Your task to perform on an android device: What's the weather going to be tomorrow? Image 0: 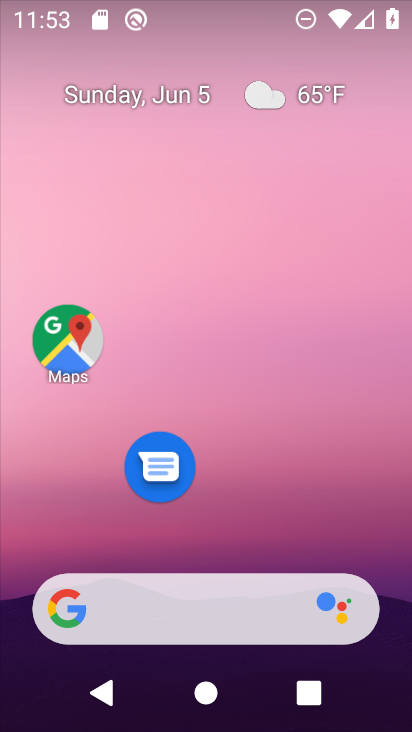
Step 0: press home button
Your task to perform on an android device: What's the weather going to be tomorrow? Image 1: 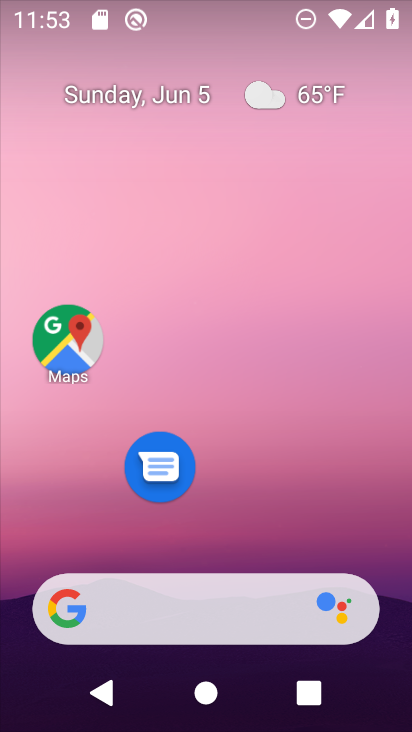
Step 1: drag from (282, 531) to (317, 21)
Your task to perform on an android device: What's the weather going to be tomorrow? Image 2: 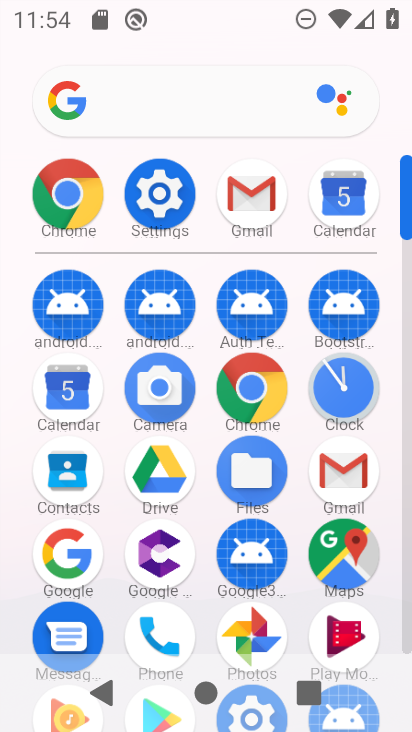
Step 2: click (254, 199)
Your task to perform on an android device: What's the weather going to be tomorrow? Image 3: 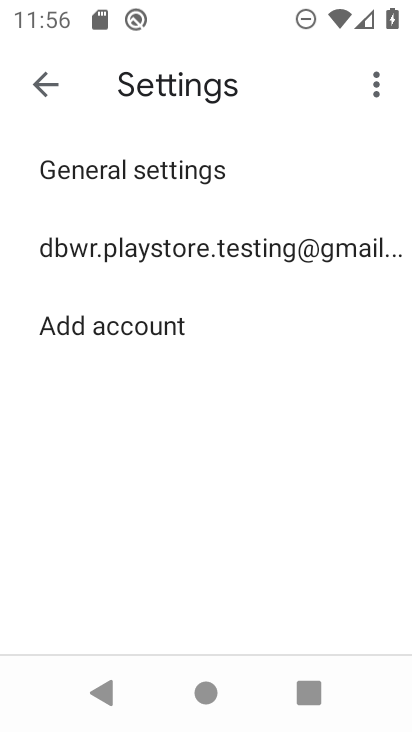
Step 3: press home button
Your task to perform on an android device: What's the weather going to be tomorrow? Image 4: 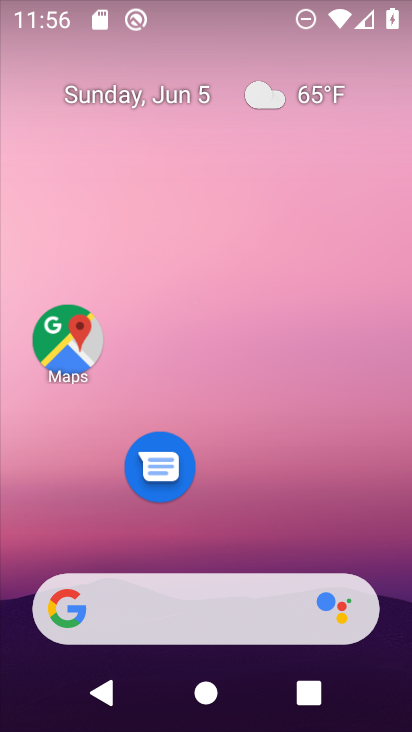
Step 4: drag from (204, 534) to (329, 166)
Your task to perform on an android device: What's the weather going to be tomorrow? Image 5: 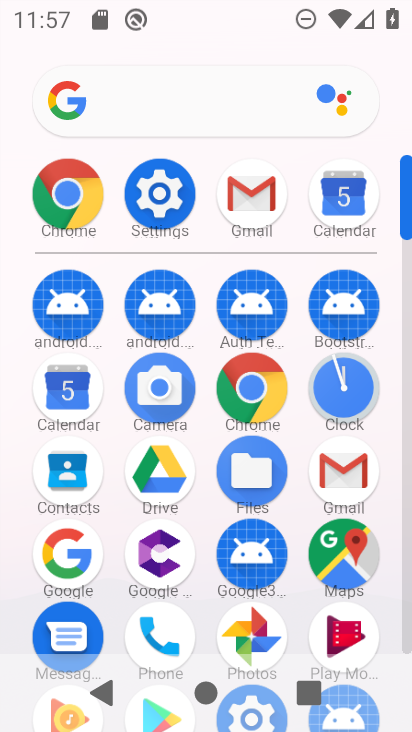
Step 5: click (73, 199)
Your task to perform on an android device: What's the weather going to be tomorrow? Image 6: 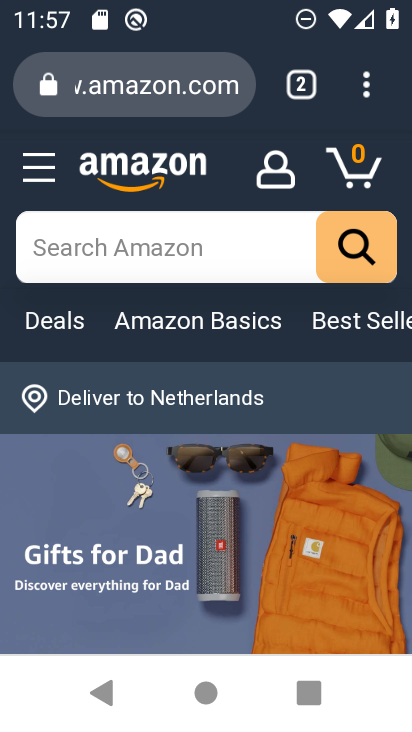
Step 6: click (144, 85)
Your task to perform on an android device: What's the weather going to be tomorrow? Image 7: 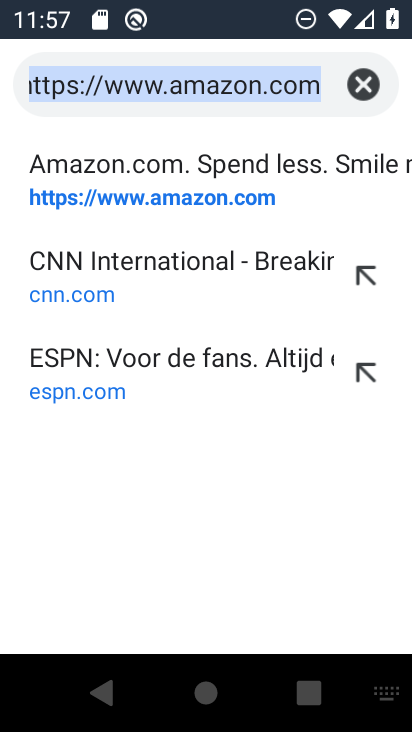
Step 7: type "What's the weather going to be tomorrow?"
Your task to perform on an android device: What's the weather going to be tomorrow? Image 8: 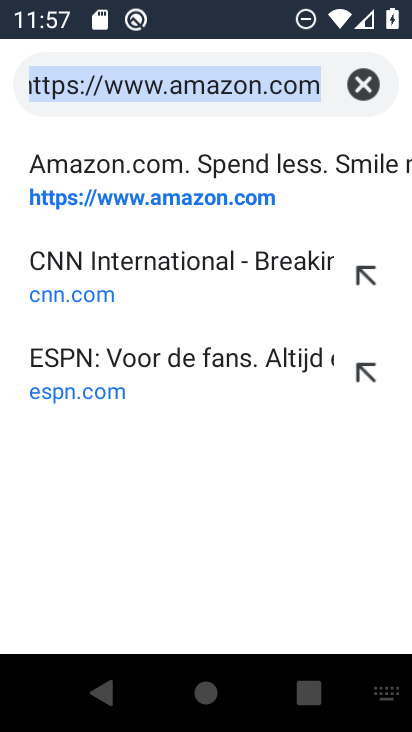
Step 8: click (288, 147)
Your task to perform on an android device: What's the weather going to be tomorrow? Image 9: 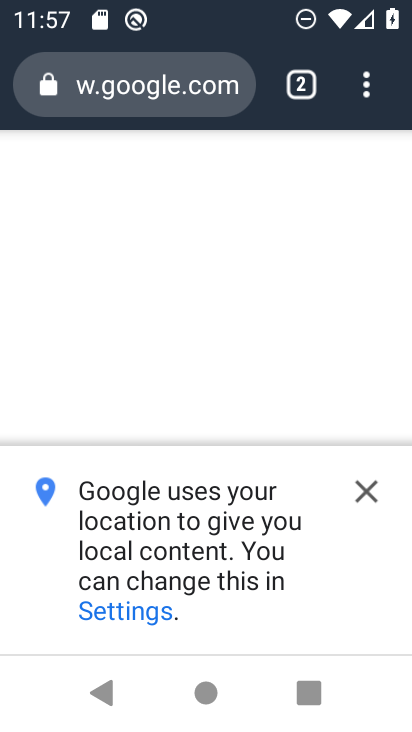
Step 9: task complete